Your task to perform on an android device: open wifi settings Image 0: 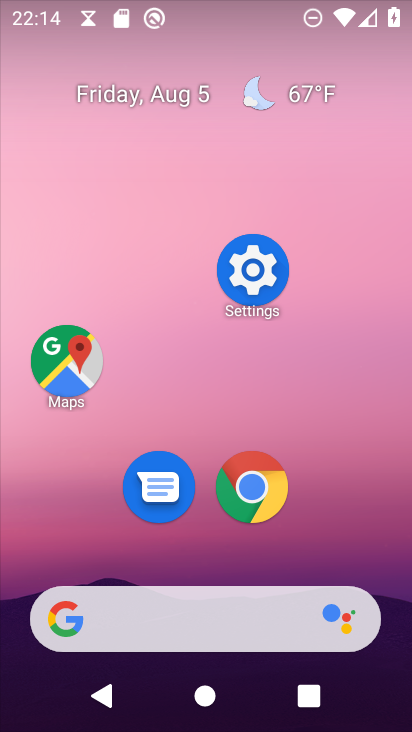
Step 0: press home button
Your task to perform on an android device: open wifi settings Image 1: 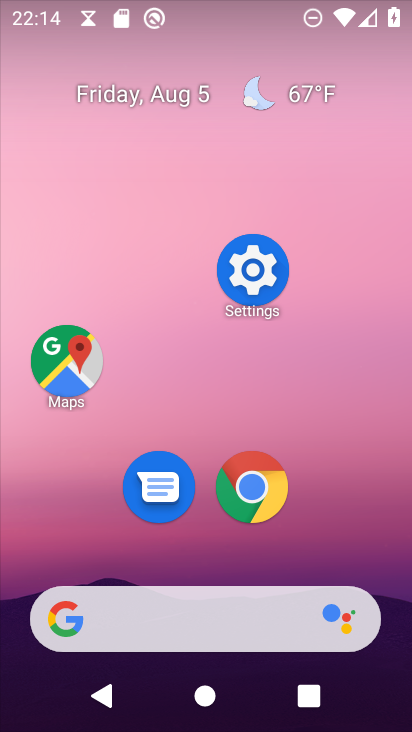
Step 1: click (253, 269)
Your task to perform on an android device: open wifi settings Image 2: 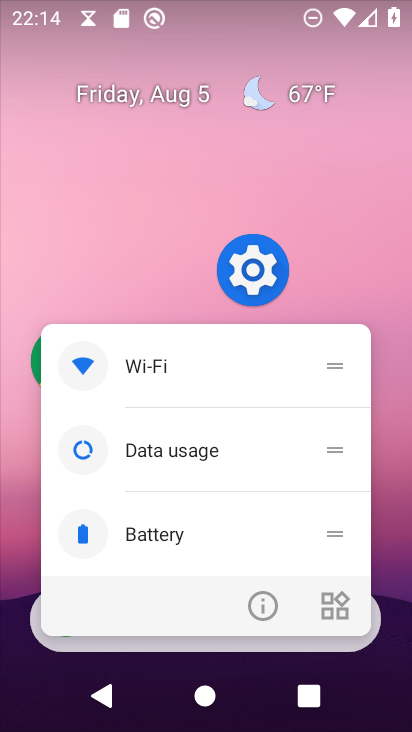
Step 2: click (253, 269)
Your task to perform on an android device: open wifi settings Image 3: 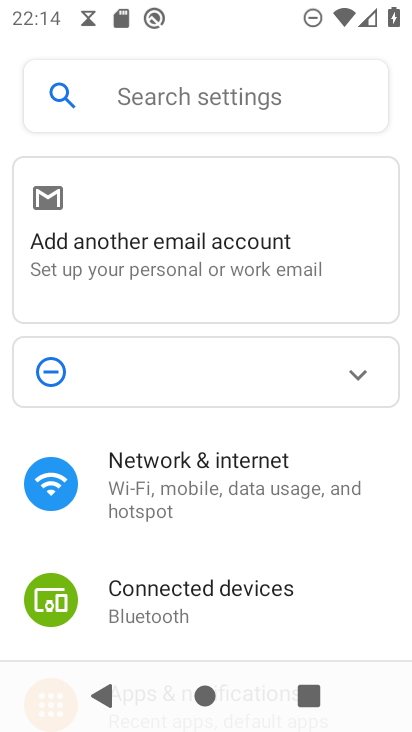
Step 3: click (228, 460)
Your task to perform on an android device: open wifi settings Image 4: 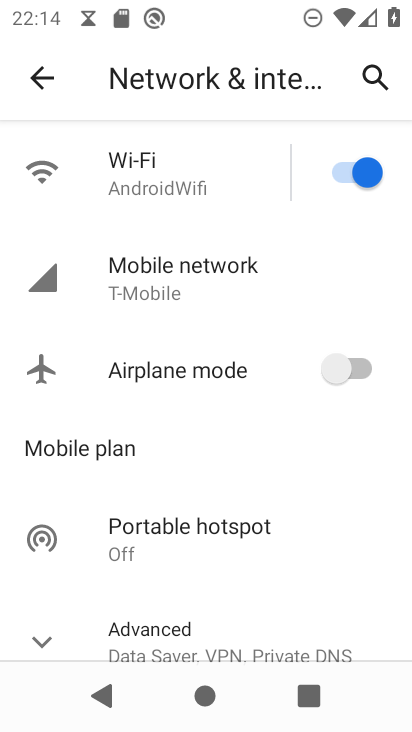
Step 4: click (150, 182)
Your task to perform on an android device: open wifi settings Image 5: 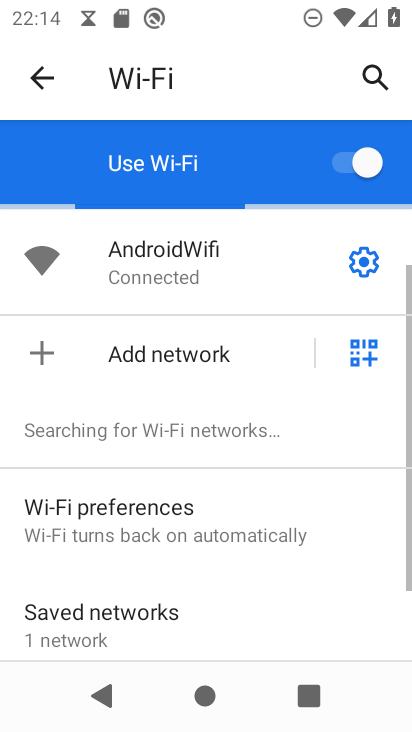
Step 5: task complete